Your task to perform on an android device: Open my contact list Image 0: 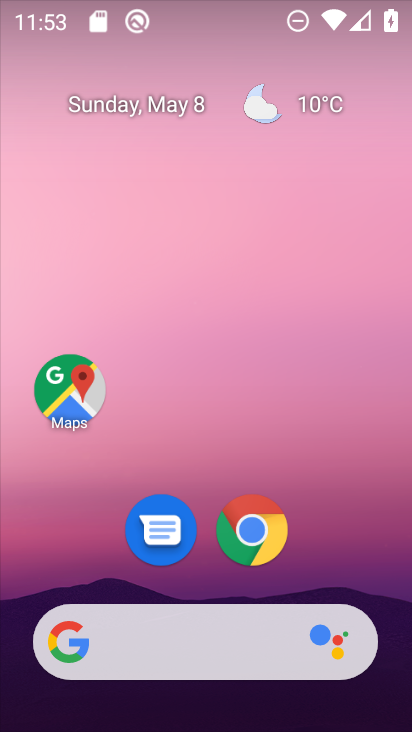
Step 0: drag from (182, 560) to (225, 47)
Your task to perform on an android device: Open my contact list Image 1: 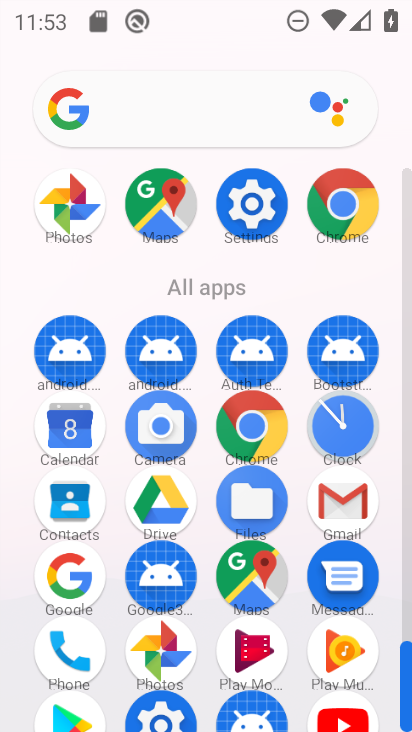
Step 1: click (82, 507)
Your task to perform on an android device: Open my contact list Image 2: 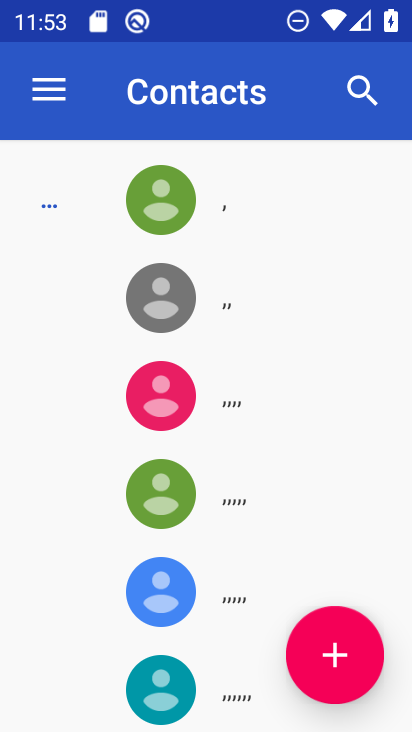
Step 2: click (230, 502)
Your task to perform on an android device: Open my contact list Image 3: 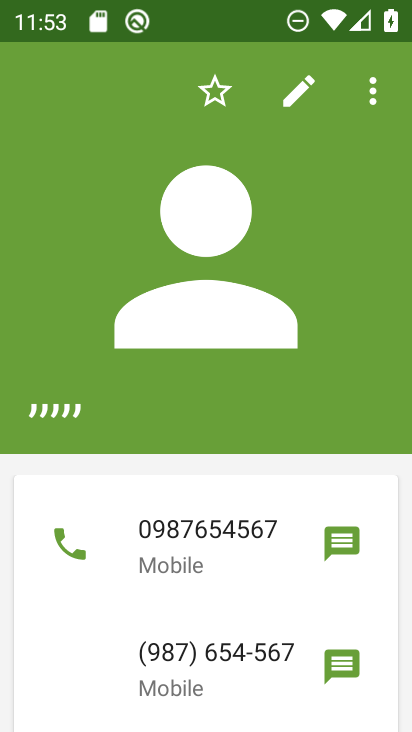
Step 3: task complete